Your task to perform on an android device: Open accessibility settings Image 0: 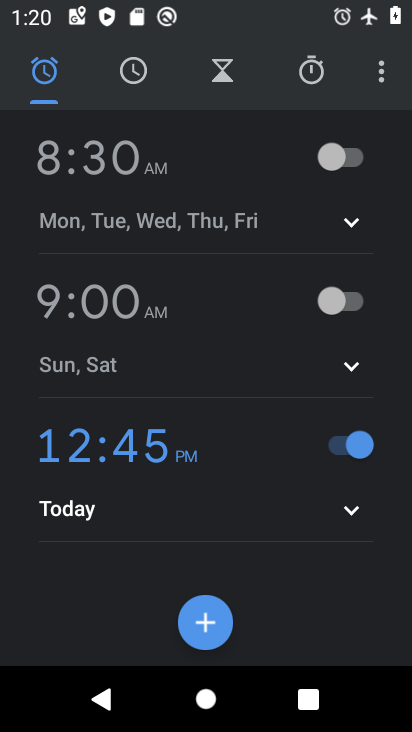
Step 0: press home button
Your task to perform on an android device: Open accessibility settings Image 1: 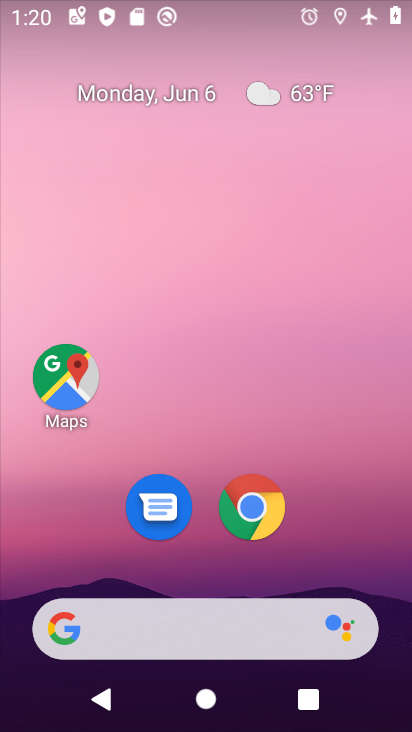
Step 1: drag from (312, 535) to (351, 15)
Your task to perform on an android device: Open accessibility settings Image 2: 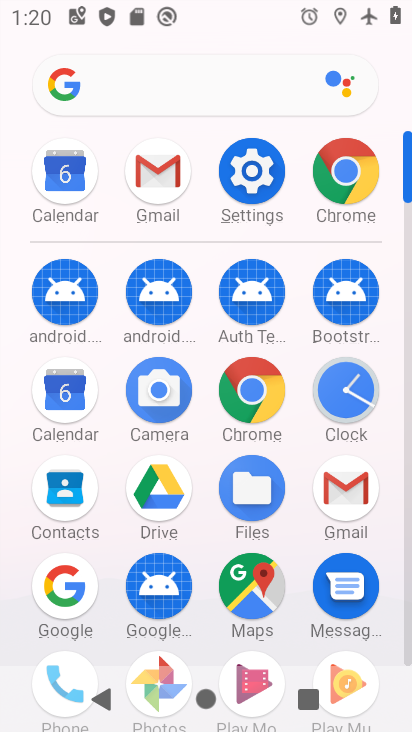
Step 2: click (247, 160)
Your task to perform on an android device: Open accessibility settings Image 3: 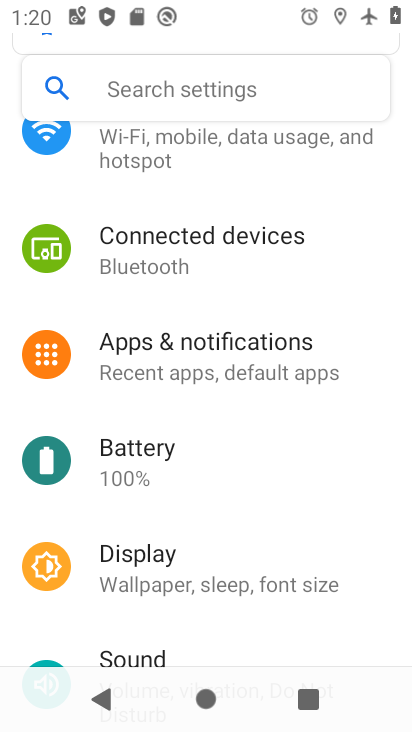
Step 3: drag from (231, 536) to (271, 54)
Your task to perform on an android device: Open accessibility settings Image 4: 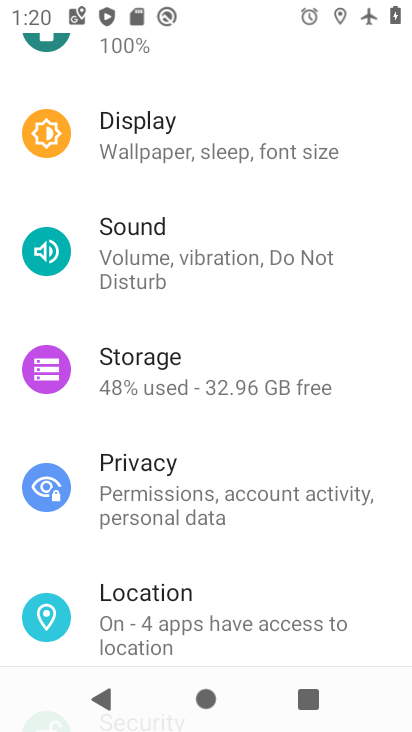
Step 4: drag from (243, 536) to (309, 29)
Your task to perform on an android device: Open accessibility settings Image 5: 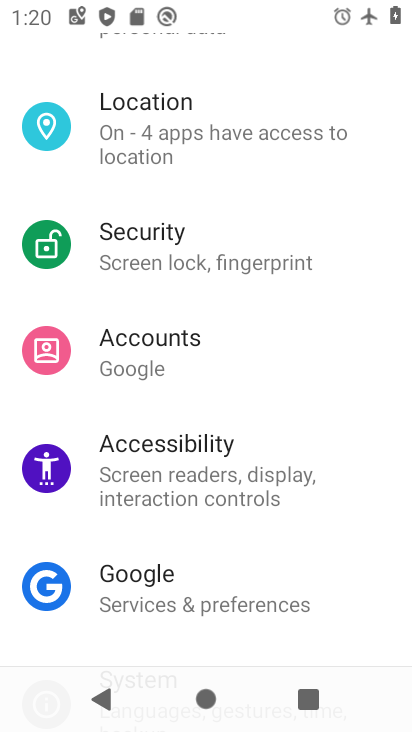
Step 5: click (194, 468)
Your task to perform on an android device: Open accessibility settings Image 6: 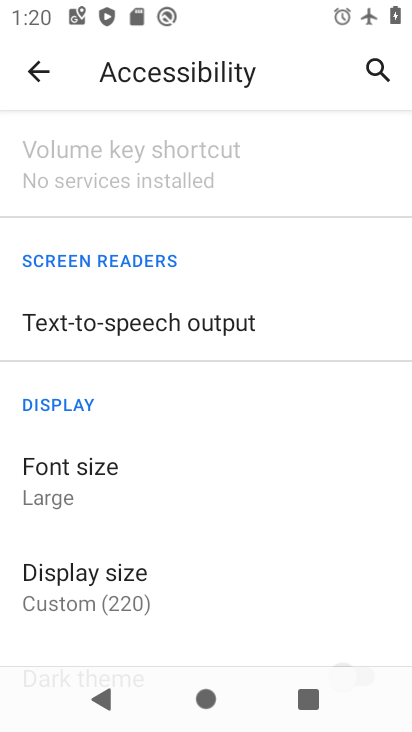
Step 6: task complete